Your task to perform on an android device: move a message to another label in the gmail app Image 0: 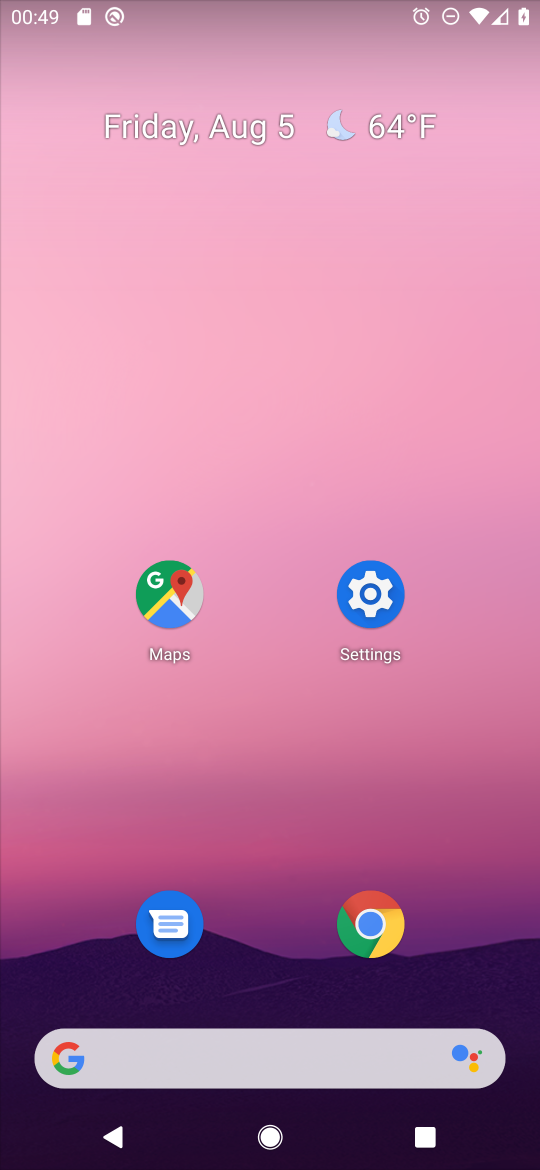
Step 0: press home button
Your task to perform on an android device: move a message to another label in the gmail app Image 1: 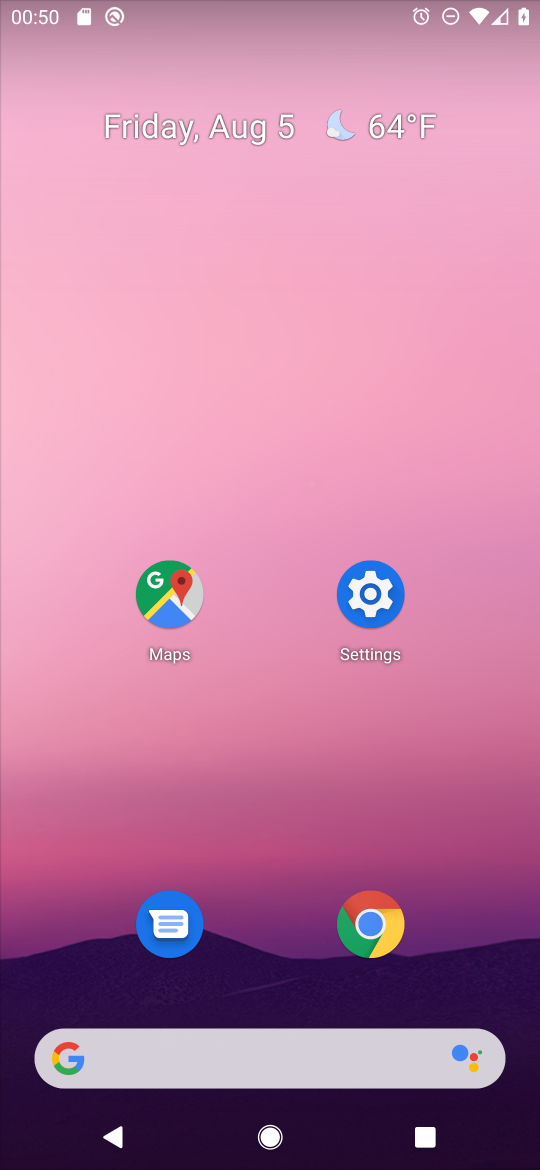
Step 1: drag from (266, 1064) to (394, 124)
Your task to perform on an android device: move a message to another label in the gmail app Image 2: 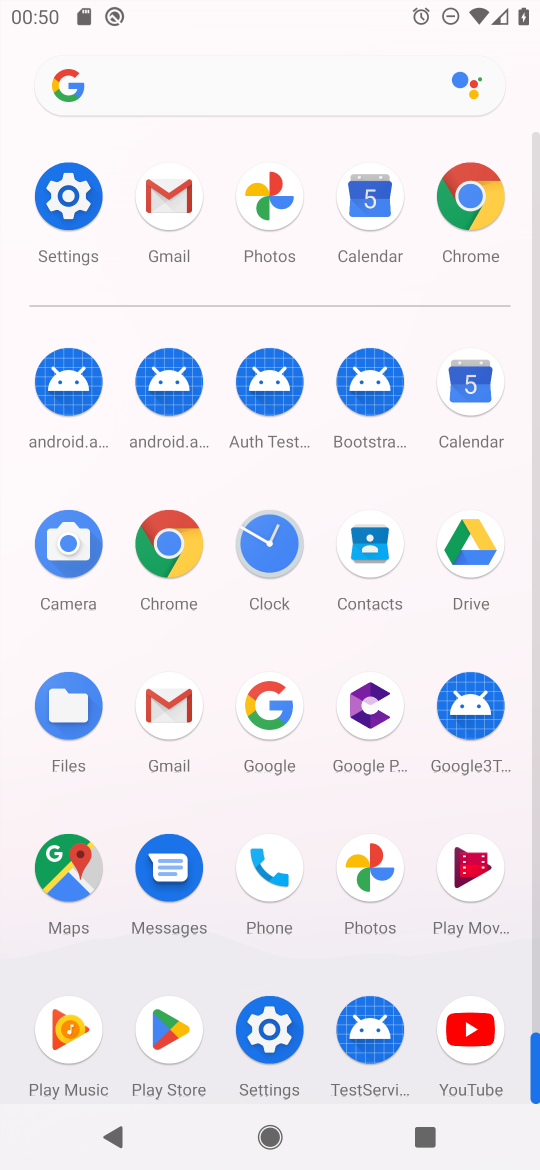
Step 2: click (168, 207)
Your task to perform on an android device: move a message to another label in the gmail app Image 3: 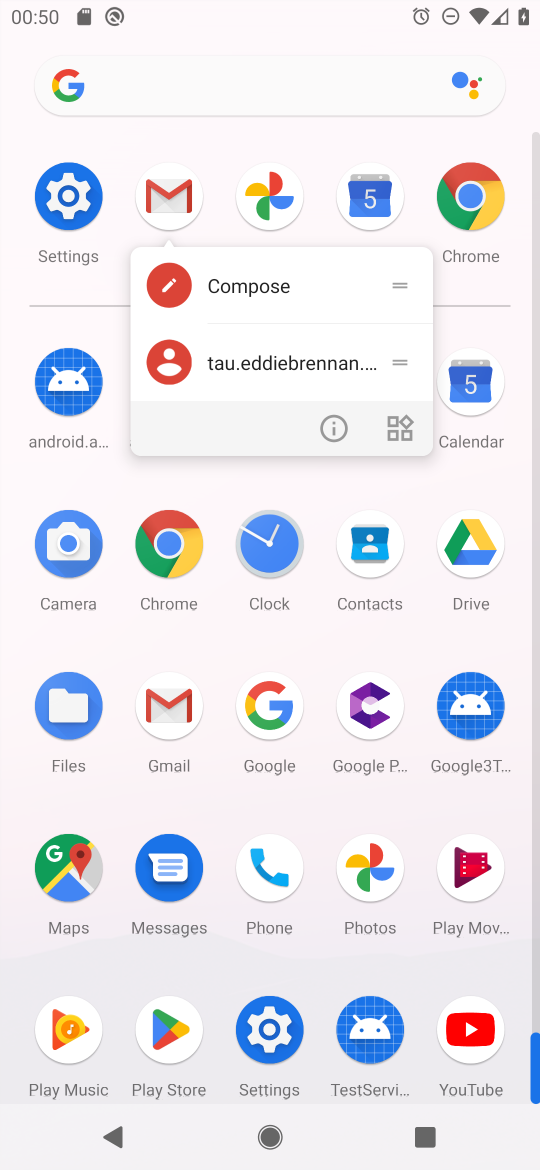
Step 3: click (166, 193)
Your task to perform on an android device: move a message to another label in the gmail app Image 4: 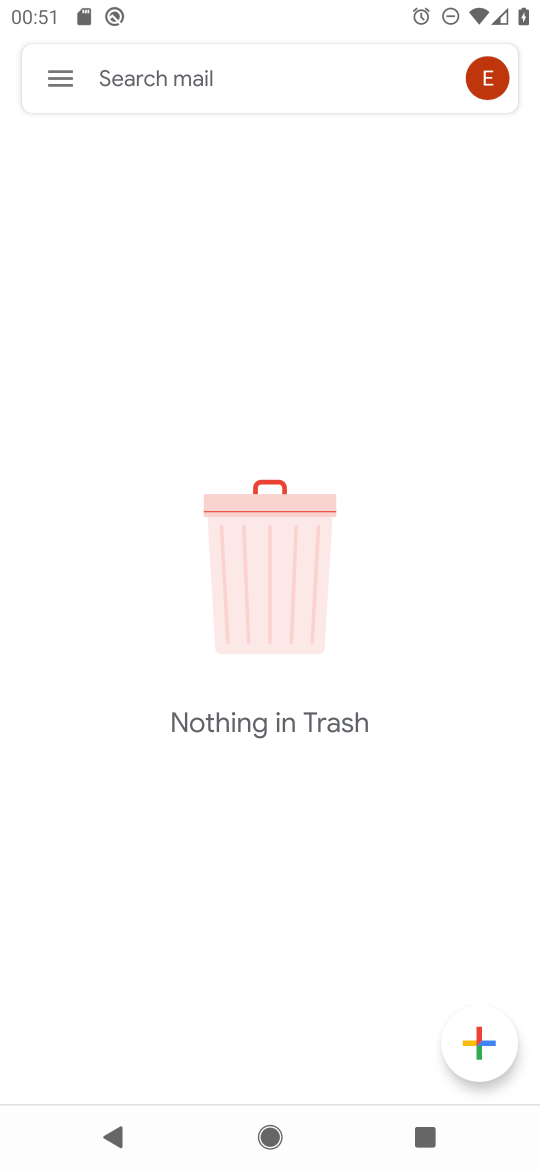
Step 4: click (36, 79)
Your task to perform on an android device: move a message to another label in the gmail app Image 5: 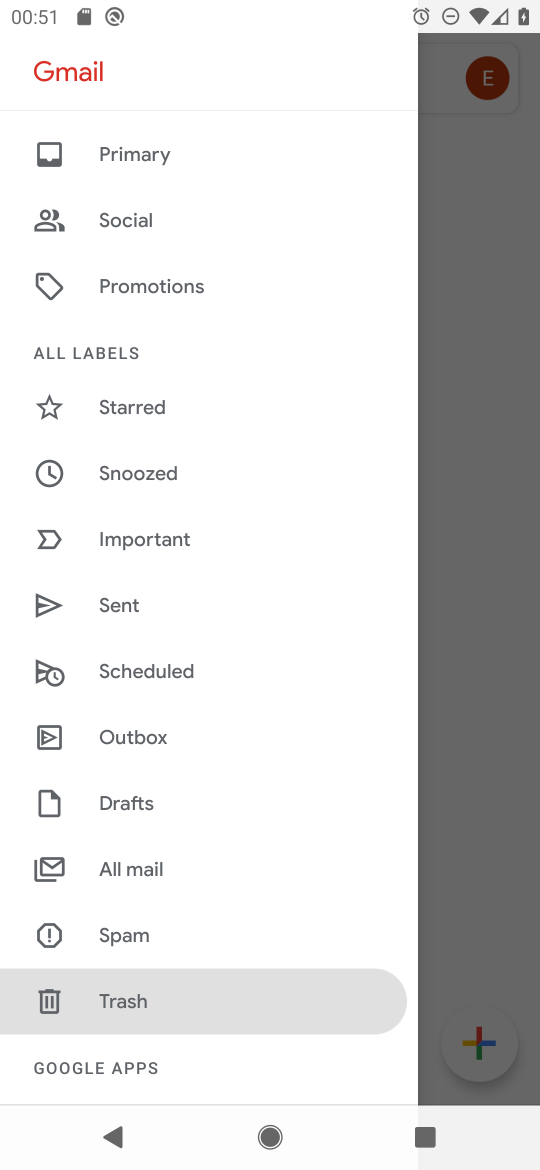
Step 5: click (142, 150)
Your task to perform on an android device: move a message to another label in the gmail app Image 6: 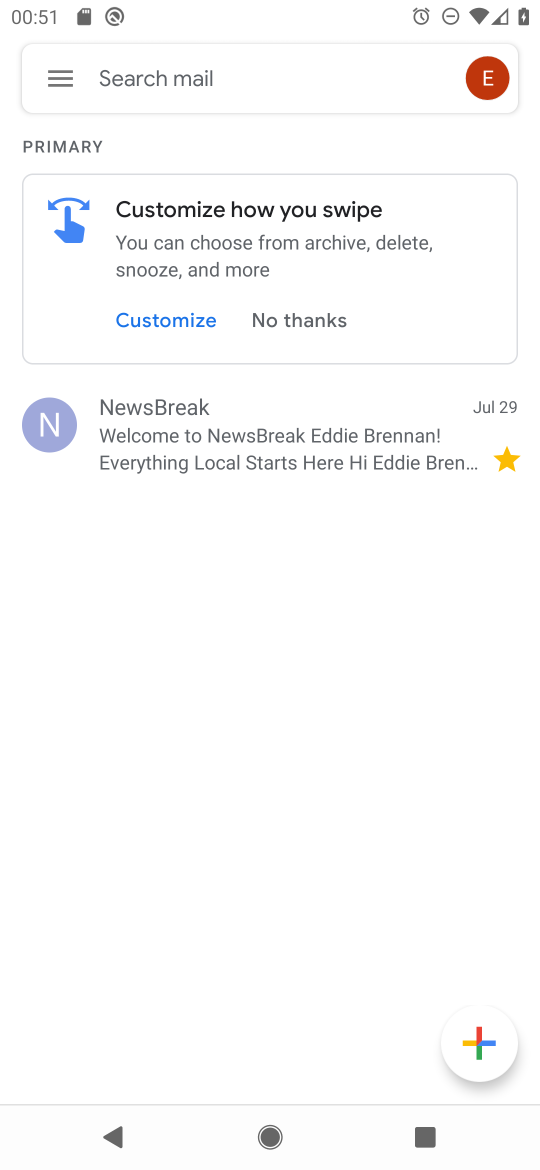
Step 6: click (245, 443)
Your task to perform on an android device: move a message to another label in the gmail app Image 7: 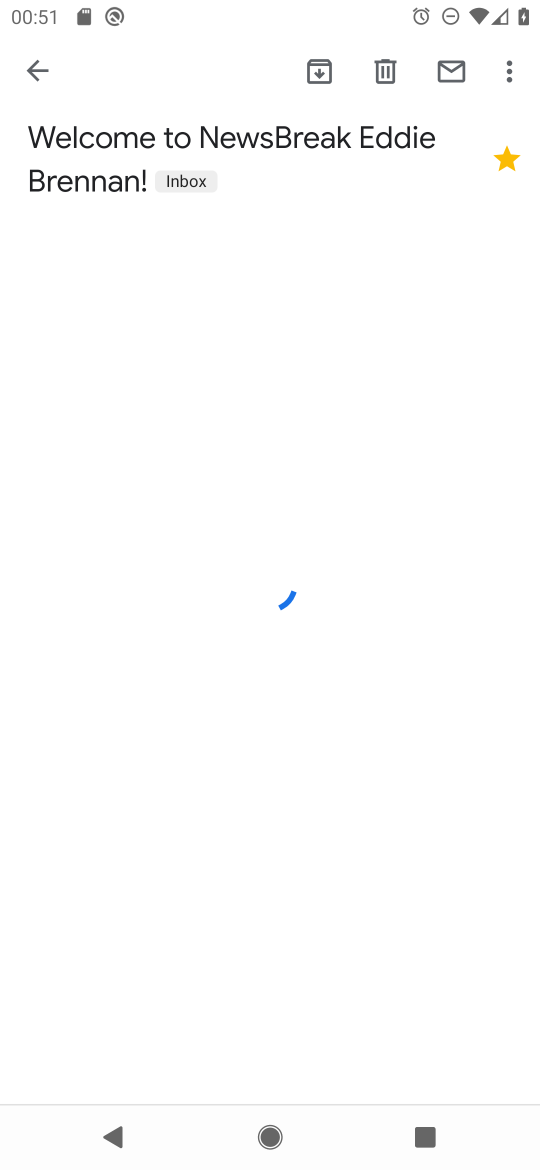
Step 7: click (197, 178)
Your task to perform on an android device: move a message to another label in the gmail app Image 8: 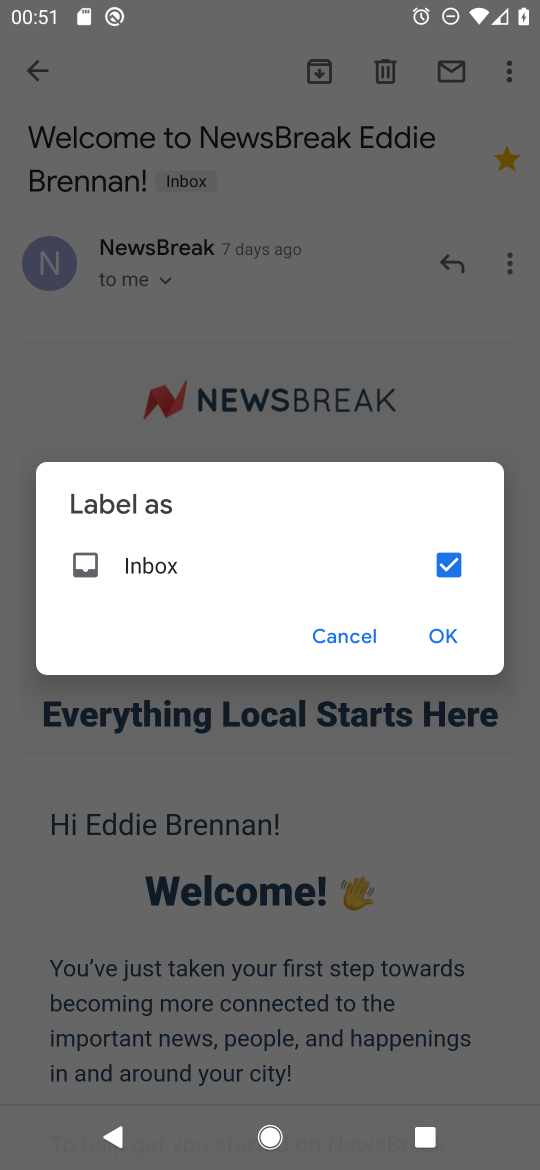
Step 8: click (447, 571)
Your task to perform on an android device: move a message to another label in the gmail app Image 9: 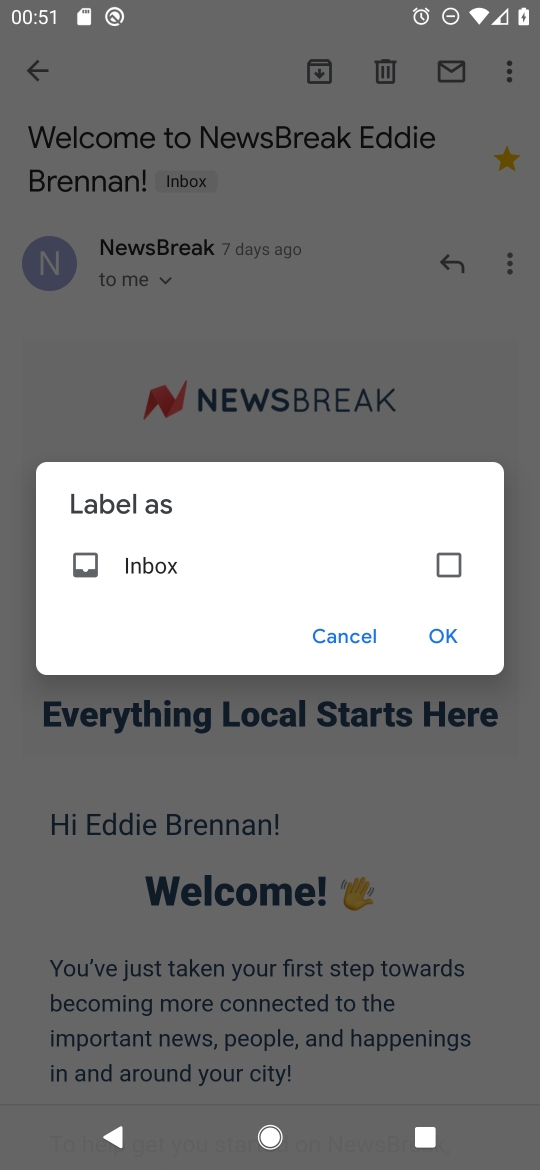
Step 9: click (452, 628)
Your task to perform on an android device: move a message to another label in the gmail app Image 10: 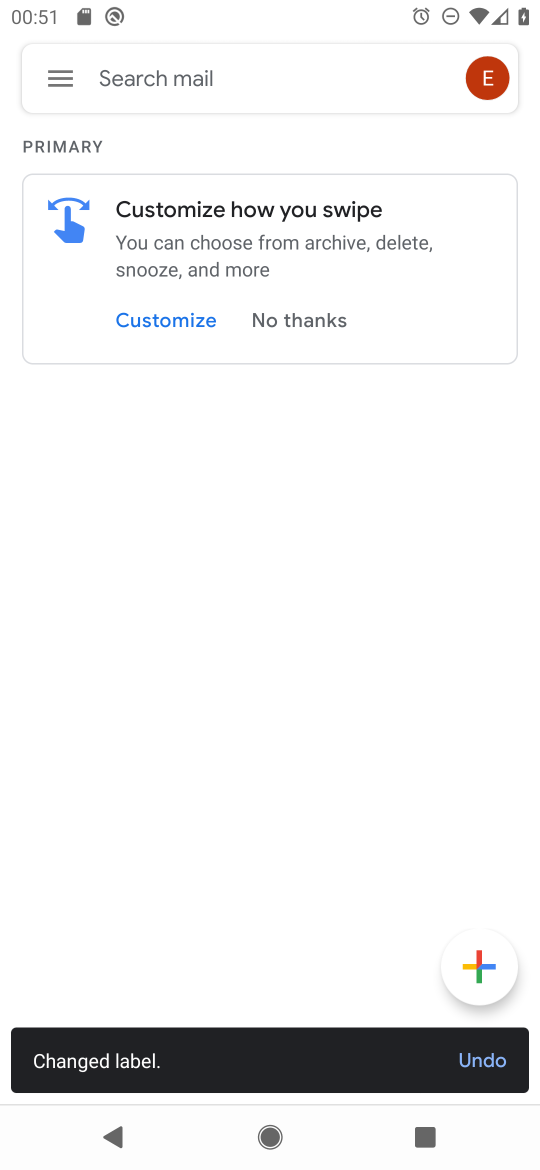
Step 10: task complete